Your task to perform on an android device: Open Youtube and go to "Your channel" Image 0: 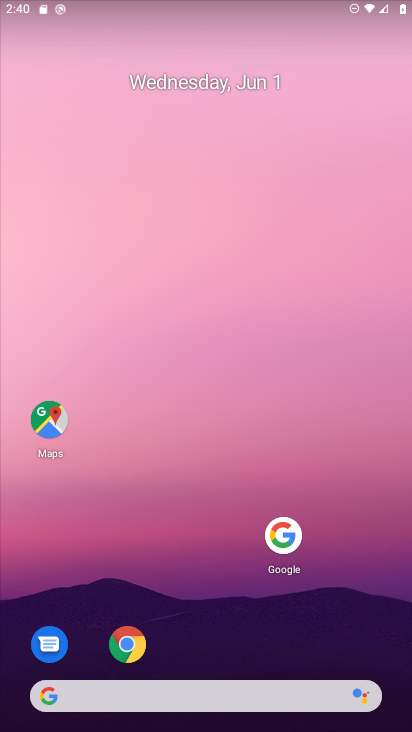
Step 0: press home button
Your task to perform on an android device: Open Youtube and go to "Your channel" Image 1: 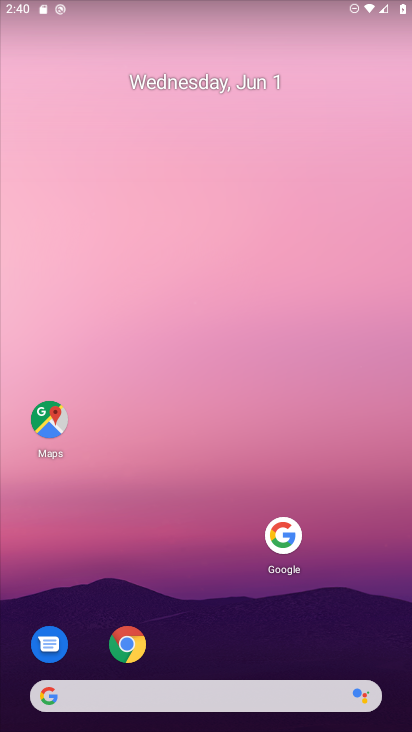
Step 1: drag from (298, 586) to (371, 171)
Your task to perform on an android device: Open Youtube and go to "Your channel" Image 2: 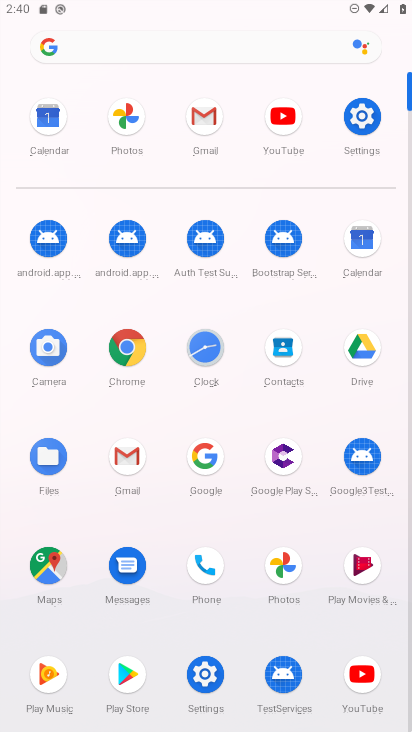
Step 2: click (353, 668)
Your task to perform on an android device: Open Youtube and go to "Your channel" Image 3: 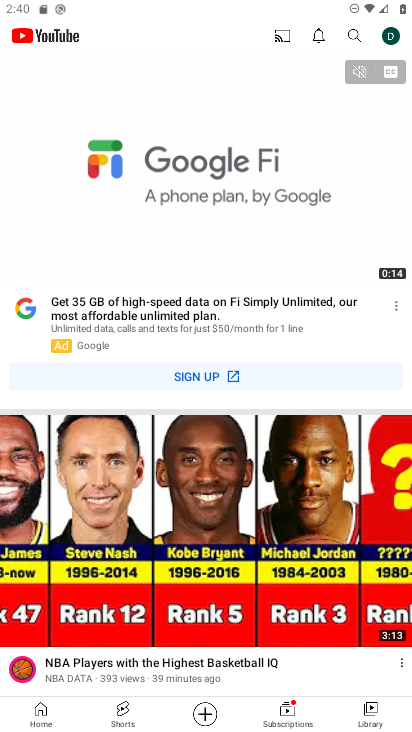
Step 3: click (387, 34)
Your task to perform on an android device: Open Youtube and go to "Your channel" Image 4: 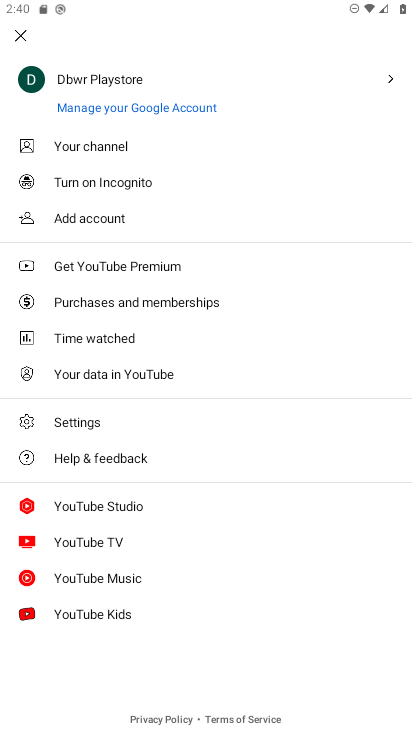
Step 4: click (100, 147)
Your task to perform on an android device: Open Youtube and go to "Your channel" Image 5: 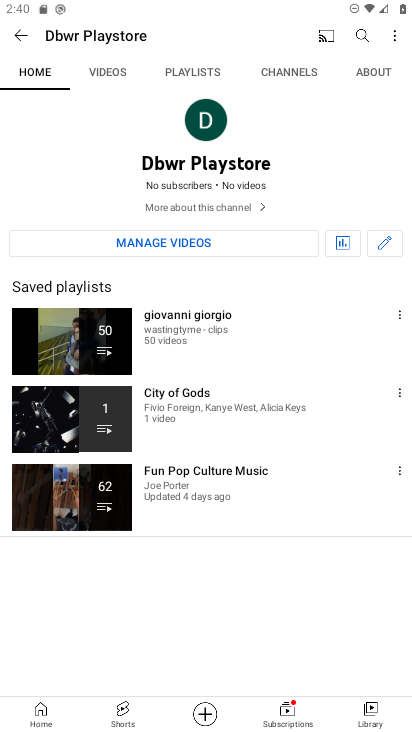
Step 5: task complete